Your task to perform on an android device: toggle wifi Image 0: 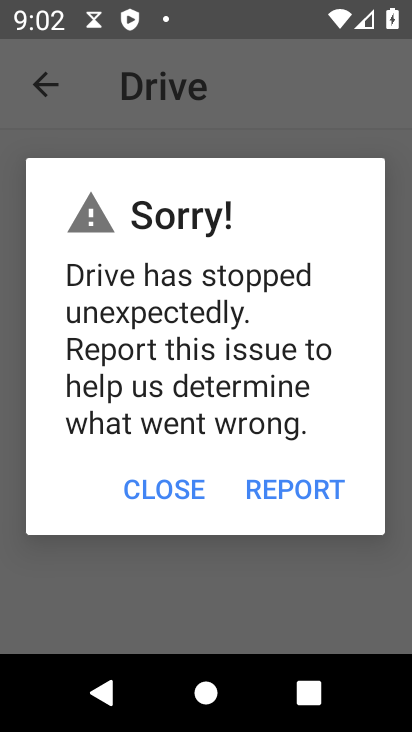
Step 0: press home button
Your task to perform on an android device: toggle wifi Image 1: 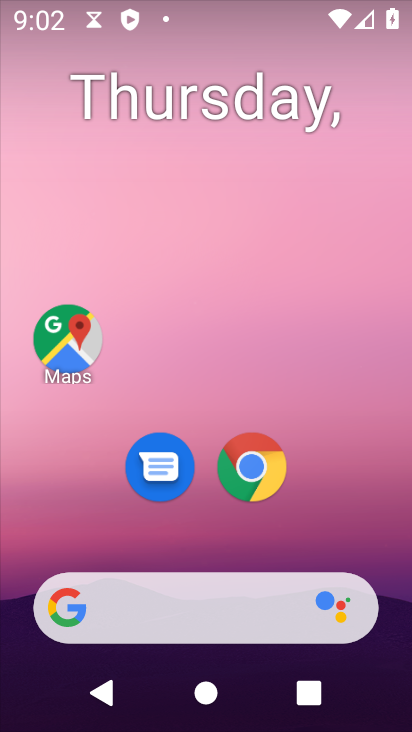
Step 1: drag from (262, 531) to (398, 13)
Your task to perform on an android device: toggle wifi Image 2: 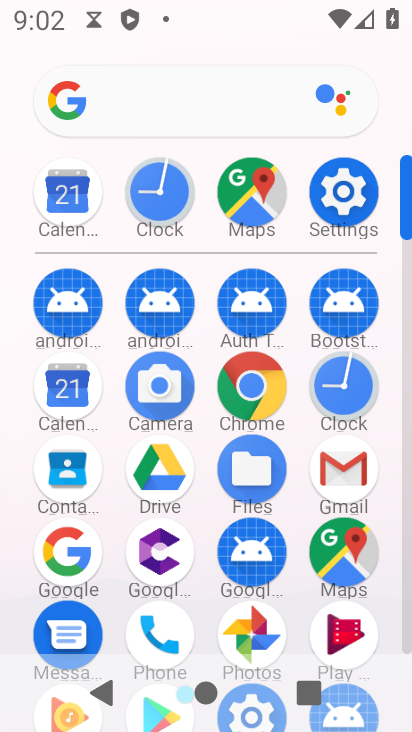
Step 2: click (342, 198)
Your task to perform on an android device: toggle wifi Image 3: 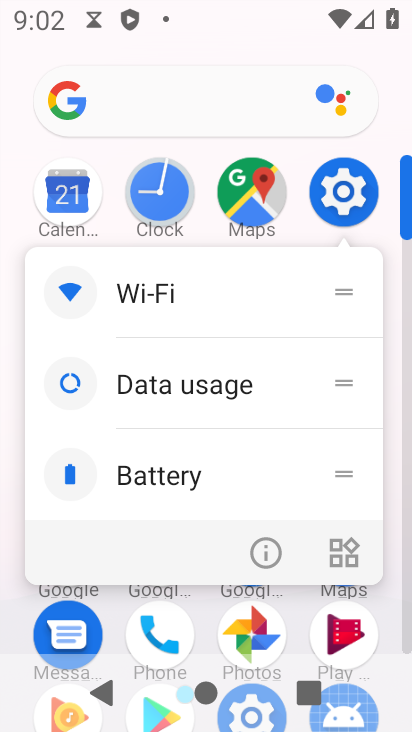
Step 3: click (342, 198)
Your task to perform on an android device: toggle wifi Image 4: 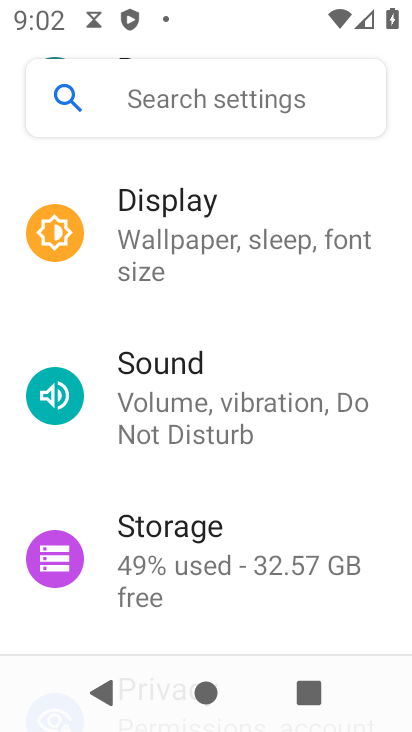
Step 4: drag from (182, 329) to (226, 483)
Your task to perform on an android device: toggle wifi Image 5: 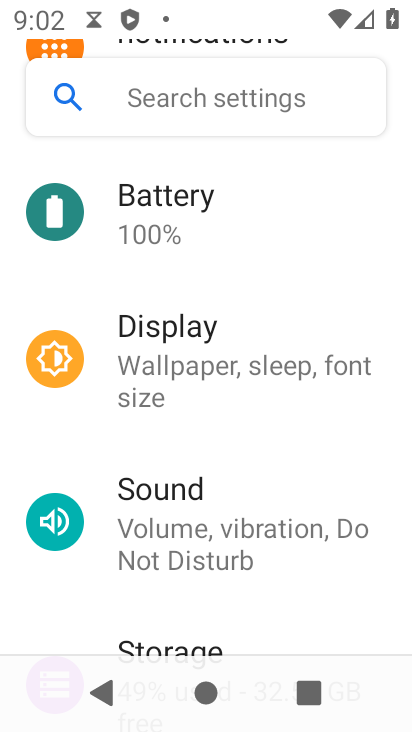
Step 5: drag from (214, 377) to (195, 473)
Your task to perform on an android device: toggle wifi Image 6: 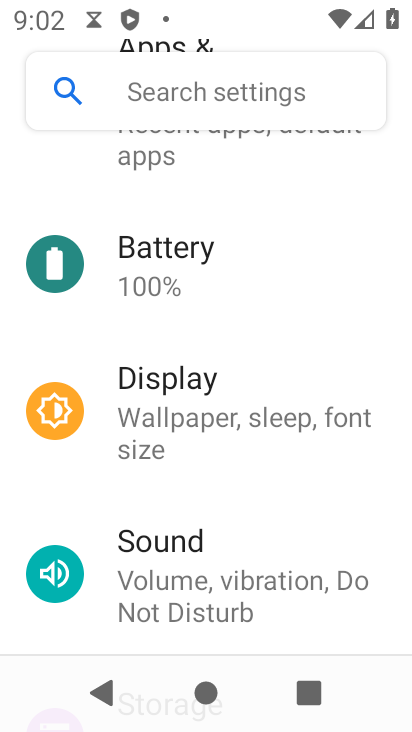
Step 6: drag from (191, 300) to (205, 447)
Your task to perform on an android device: toggle wifi Image 7: 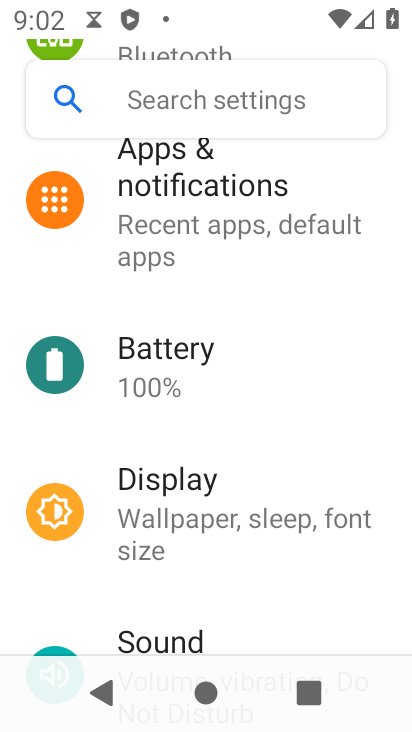
Step 7: drag from (221, 290) to (212, 430)
Your task to perform on an android device: toggle wifi Image 8: 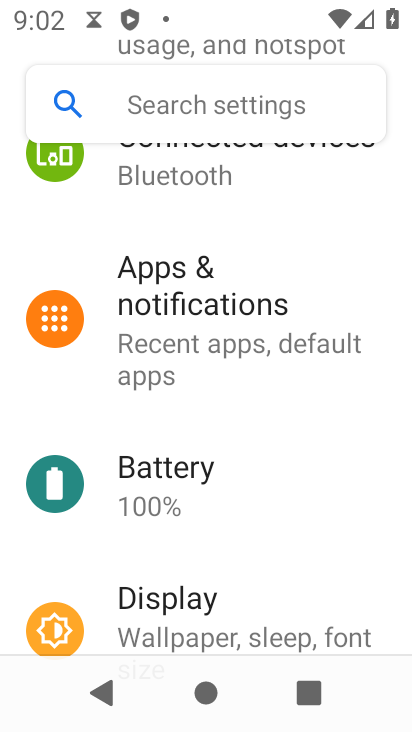
Step 8: drag from (178, 294) to (174, 443)
Your task to perform on an android device: toggle wifi Image 9: 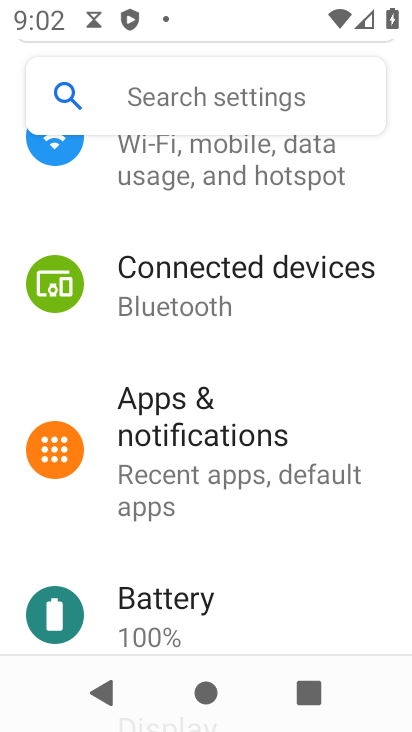
Step 9: drag from (173, 307) to (129, 423)
Your task to perform on an android device: toggle wifi Image 10: 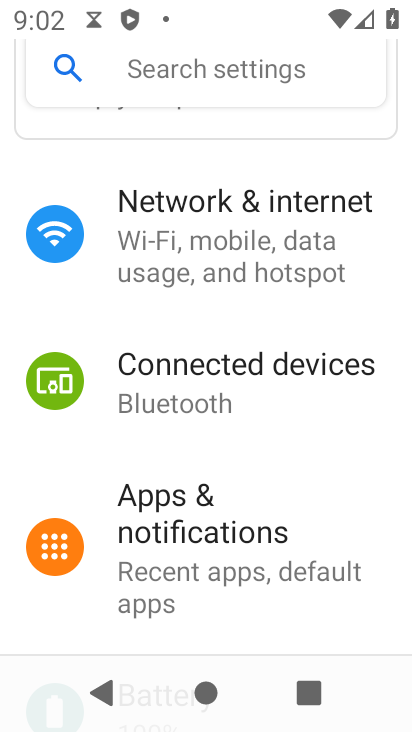
Step 10: click (170, 304)
Your task to perform on an android device: toggle wifi Image 11: 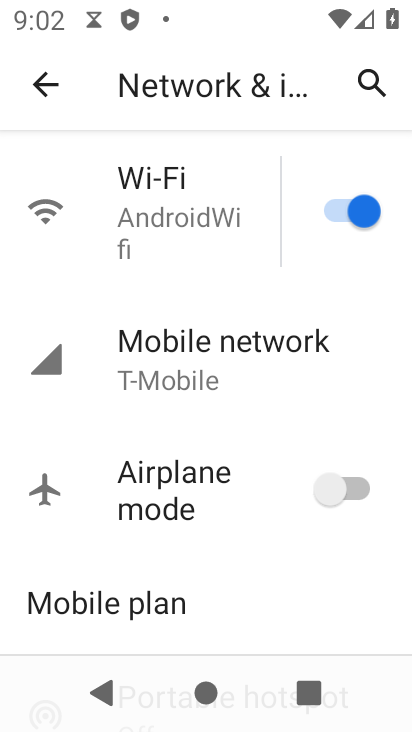
Step 11: click (334, 221)
Your task to perform on an android device: toggle wifi Image 12: 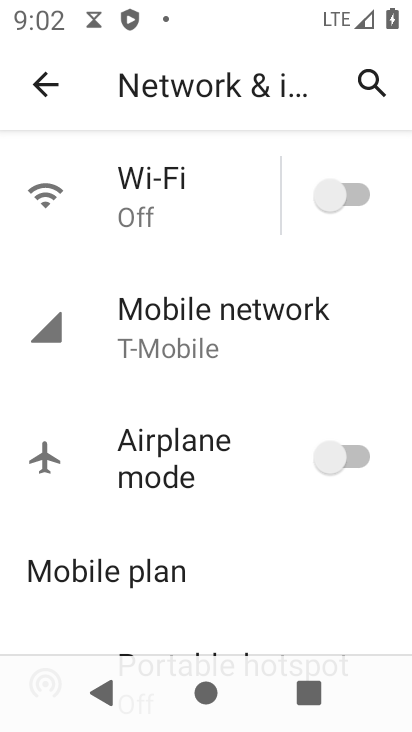
Step 12: task complete